Your task to perform on an android device: set the stopwatch Image 0: 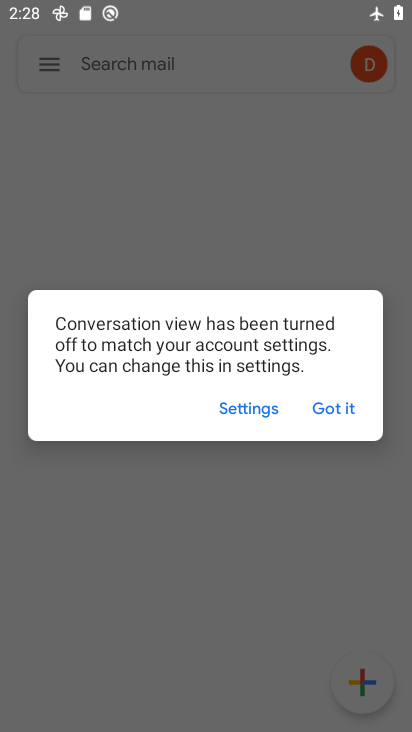
Step 0: press home button
Your task to perform on an android device: set the stopwatch Image 1: 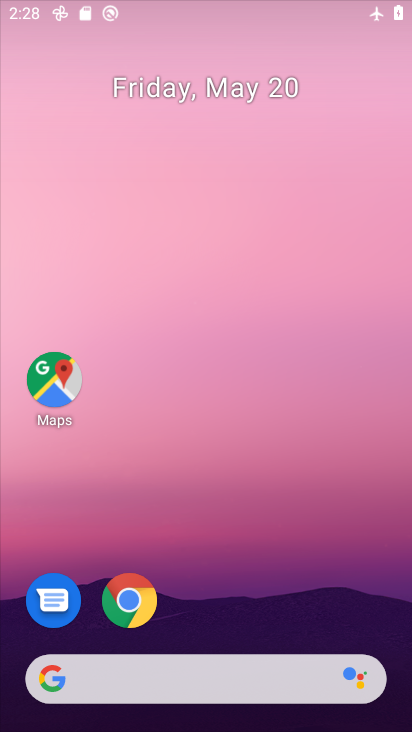
Step 1: drag from (251, 338) to (141, 61)
Your task to perform on an android device: set the stopwatch Image 2: 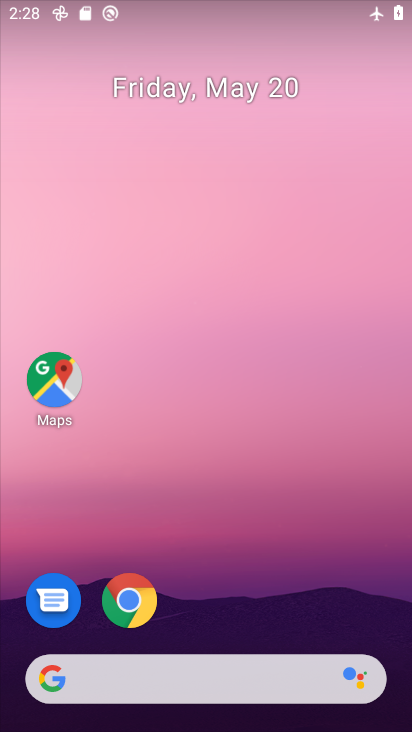
Step 2: drag from (227, 187) to (119, 23)
Your task to perform on an android device: set the stopwatch Image 3: 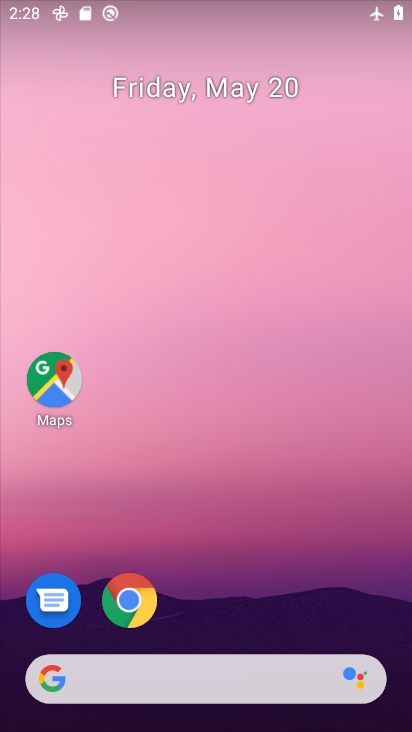
Step 3: drag from (212, 306) to (126, 3)
Your task to perform on an android device: set the stopwatch Image 4: 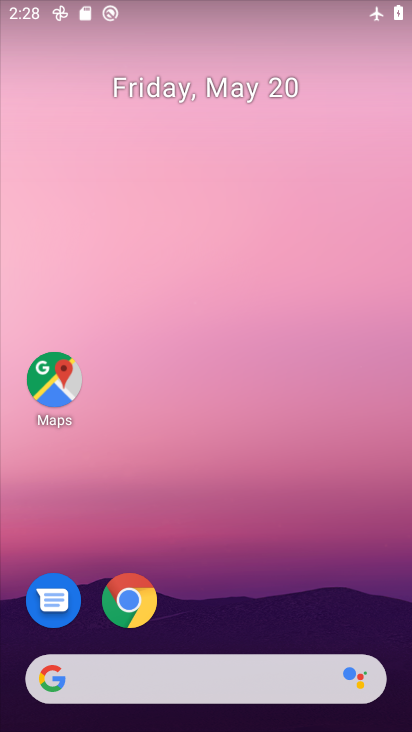
Step 4: drag from (279, 473) to (157, 7)
Your task to perform on an android device: set the stopwatch Image 5: 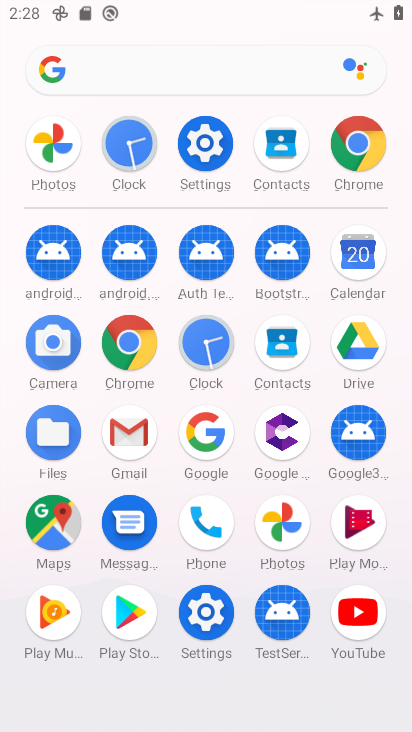
Step 5: click (146, 129)
Your task to perform on an android device: set the stopwatch Image 6: 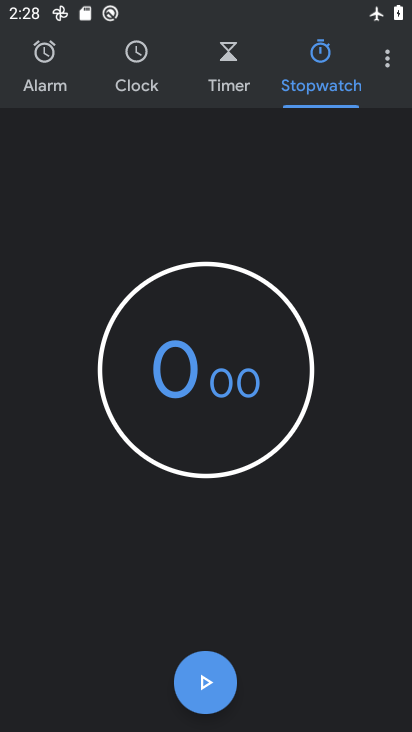
Step 6: click (210, 674)
Your task to perform on an android device: set the stopwatch Image 7: 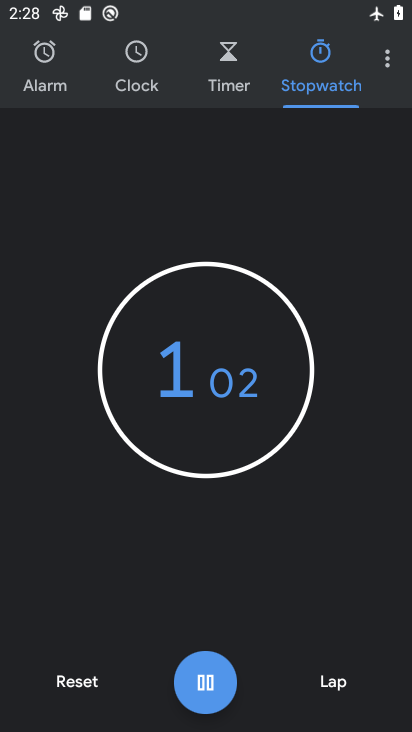
Step 7: task complete